Your task to perform on an android device: Open notification settings Image 0: 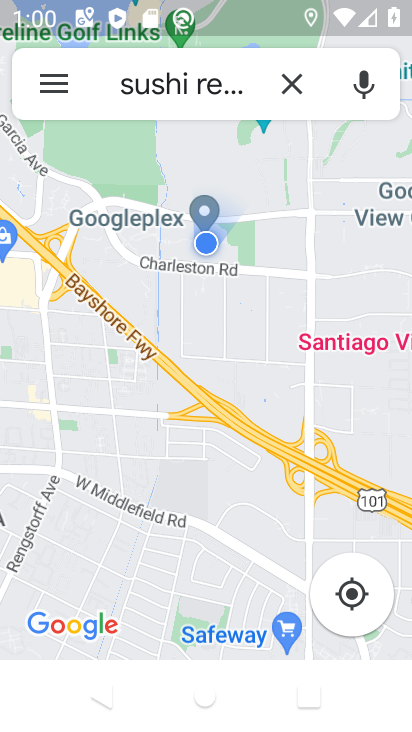
Step 0: press home button
Your task to perform on an android device: Open notification settings Image 1: 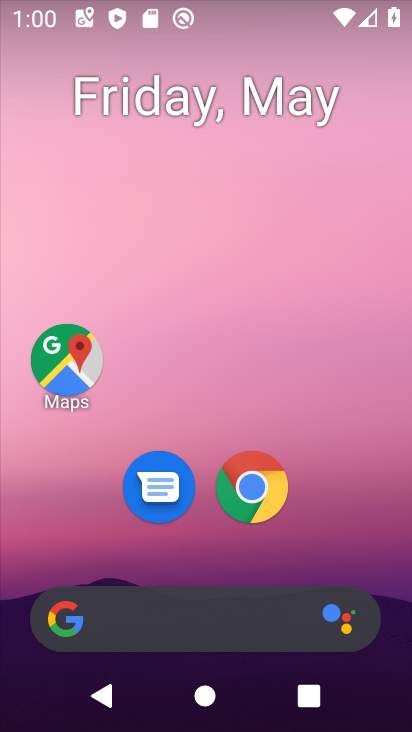
Step 1: drag from (199, 548) to (173, 59)
Your task to perform on an android device: Open notification settings Image 2: 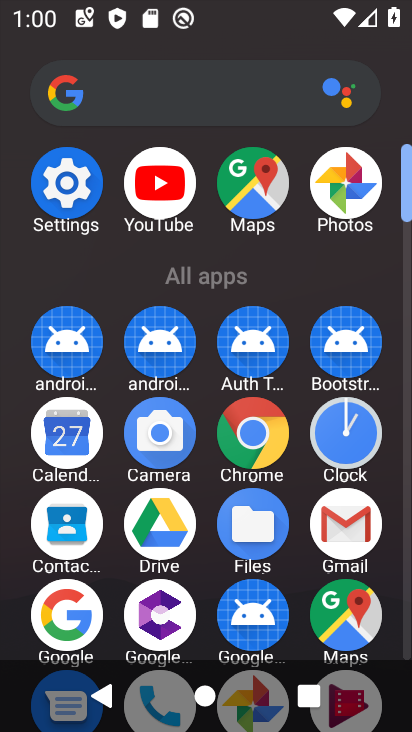
Step 2: click (86, 173)
Your task to perform on an android device: Open notification settings Image 3: 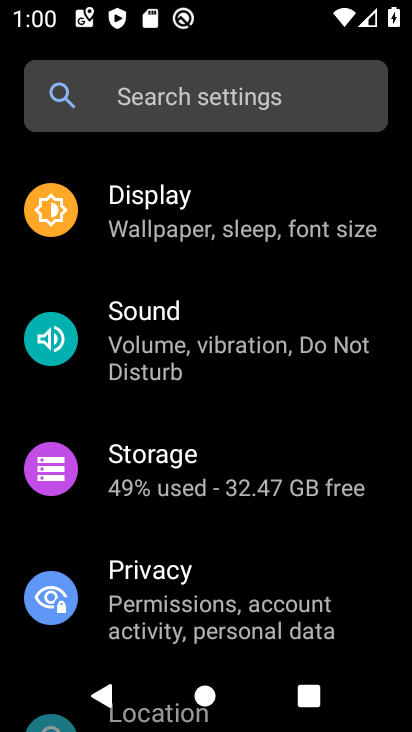
Step 3: drag from (138, 272) to (140, 636)
Your task to perform on an android device: Open notification settings Image 4: 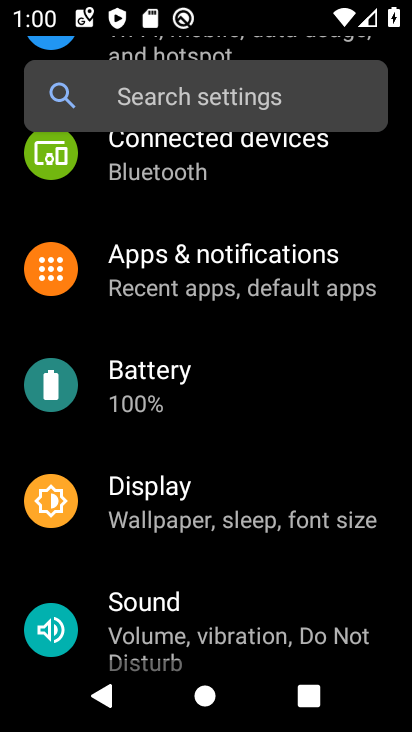
Step 4: click (164, 286)
Your task to perform on an android device: Open notification settings Image 5: 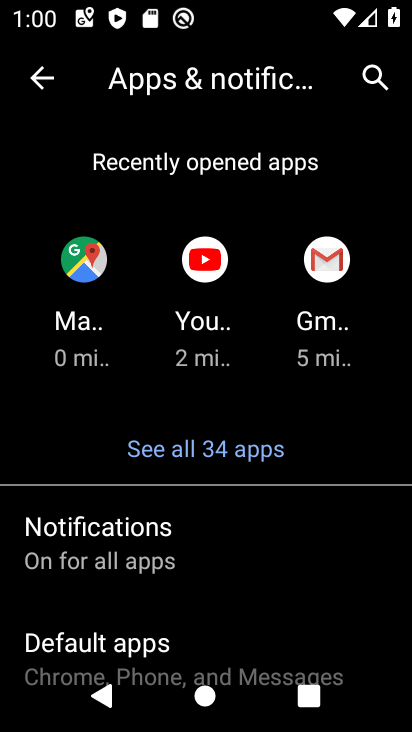
Step 5: task complete